Your task to perform on an android device: delete a single message in the gmail app Image 0: 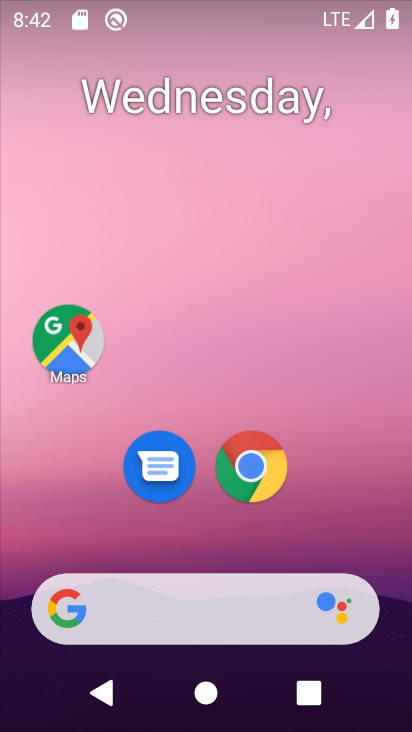
Step 0: drag from (229, 720) to (243, 139)
Your task to perform on an android device: delete a single message in the gmail app Image 1: 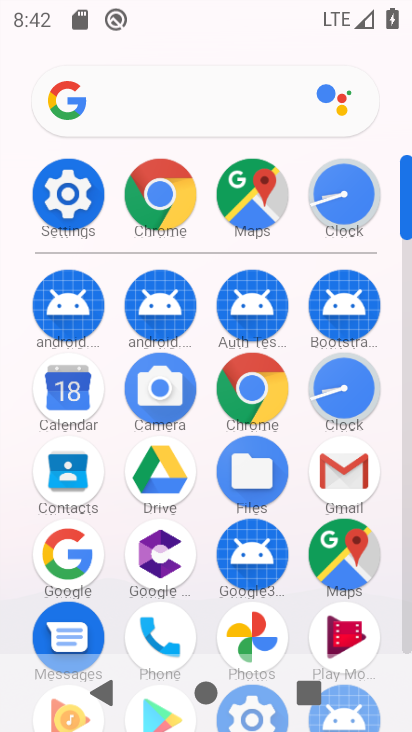
Step 1: click (336, 465)
Your task to perform on an android device: delete a single message in the gmail app Image 2: 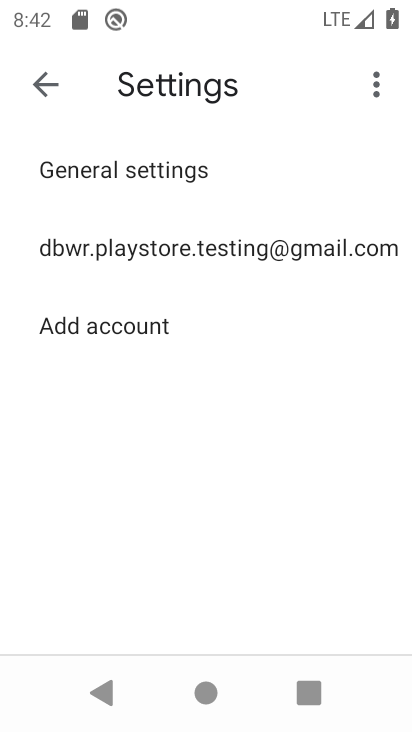
Step 2: click (36, 79)
Your task to perform on an android device: delete a single message in the gmail app Image 3: 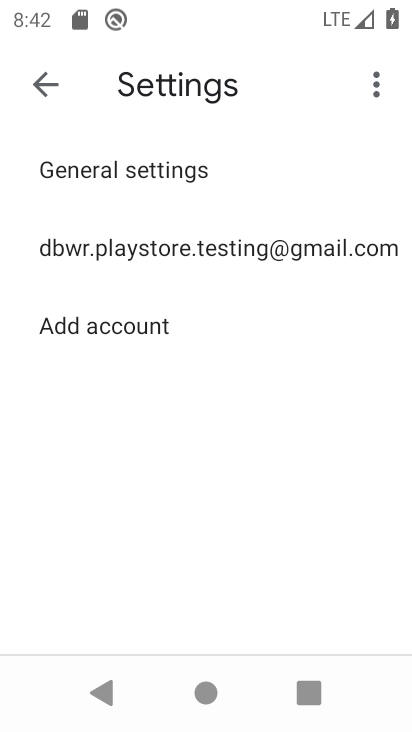
Step 3: click (36, 79)
Your task to perform on an android device: delete a single message in the gmail app Image 4: 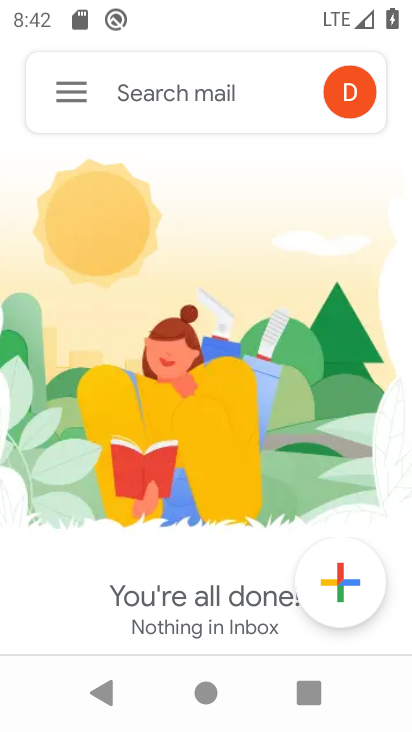
Step 4: task complete